Your task to perform on an android device: Find coffee shops on Maps Image 0: 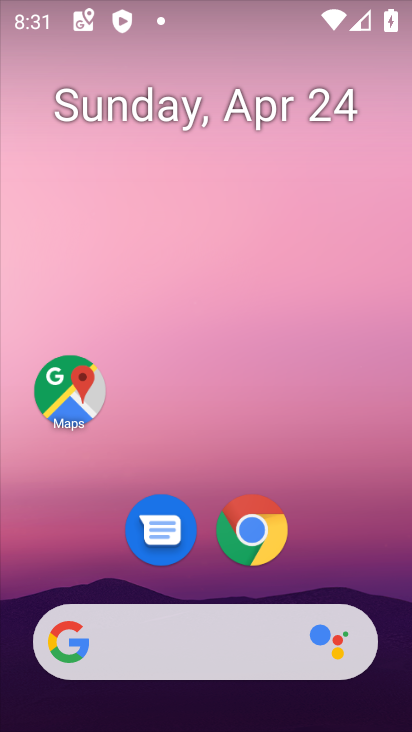
Step 0: click (58, 378)
Your task to perform on an android device: Find coffee shops on Maps Image 1: 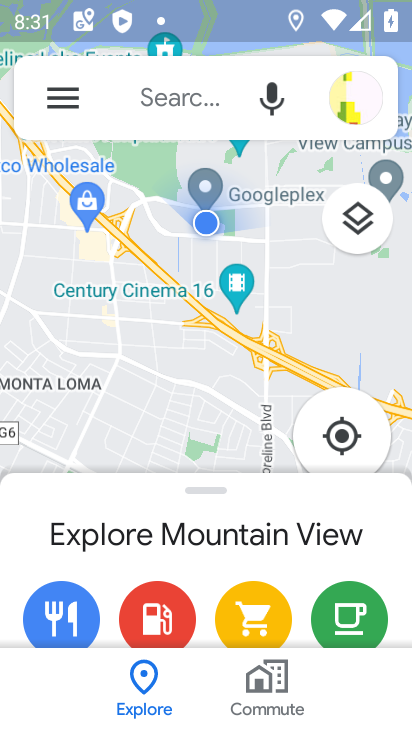
Step 1: click (173, 102)
Your task to perform on an android device: Find coffee shops on Maps Image 2: 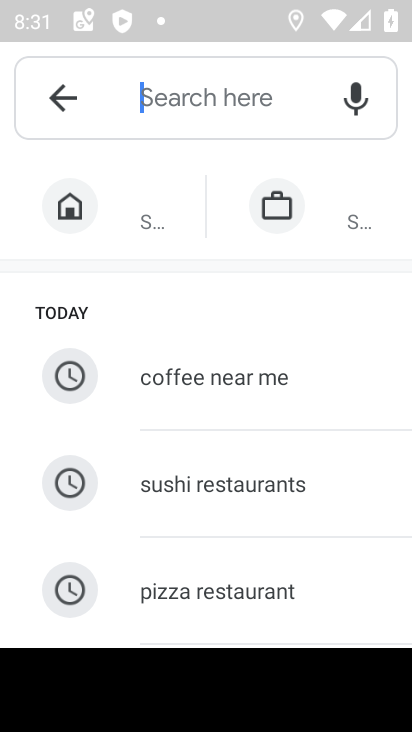
Step 2: click (297, 397)
Your task to perform on an android device: Find coffee shops on Maps Image 3: 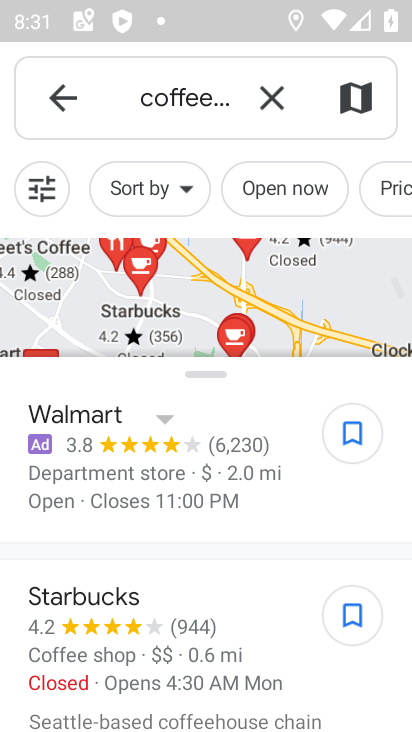
Step 3: task complete